Your task to perform on an android device: Open settings Image 0: 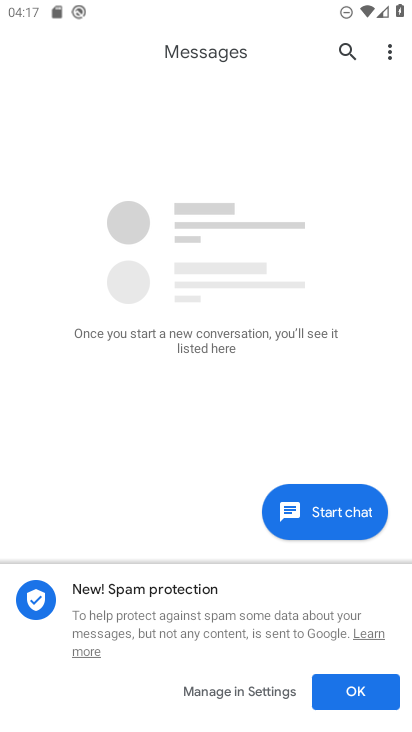
Step 0: press back button
Your task to perform on an android device: Open settings Image 1: 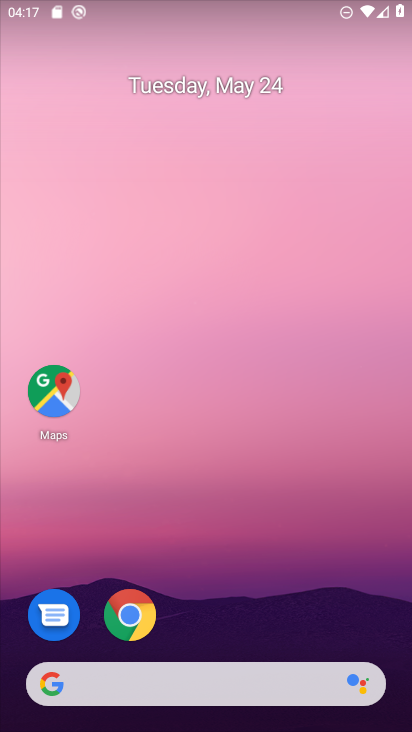
Step 1: drag from (288, 552) to (263, 59)
Your task to perform on an android device: Open settings Image 2: 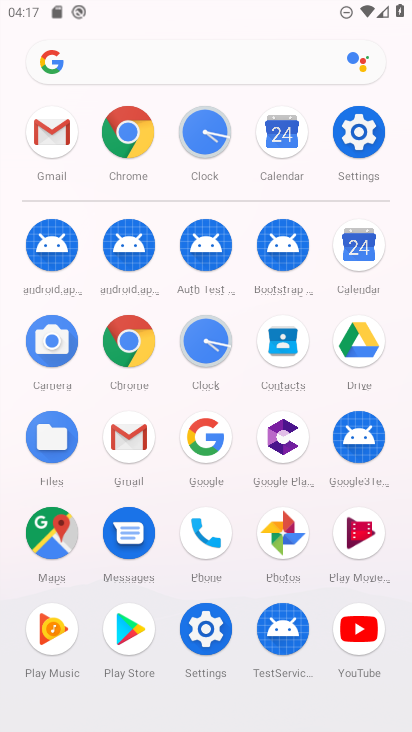
Step 2: click (204, 628)
Your task to perform on an android device: Open settings Image 3: 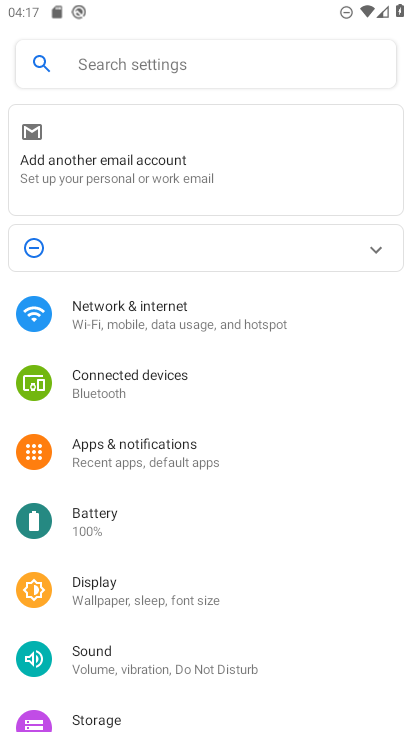
Step 3: task complete